Your task to perform on an android device: Open Reddit.com Image 0: 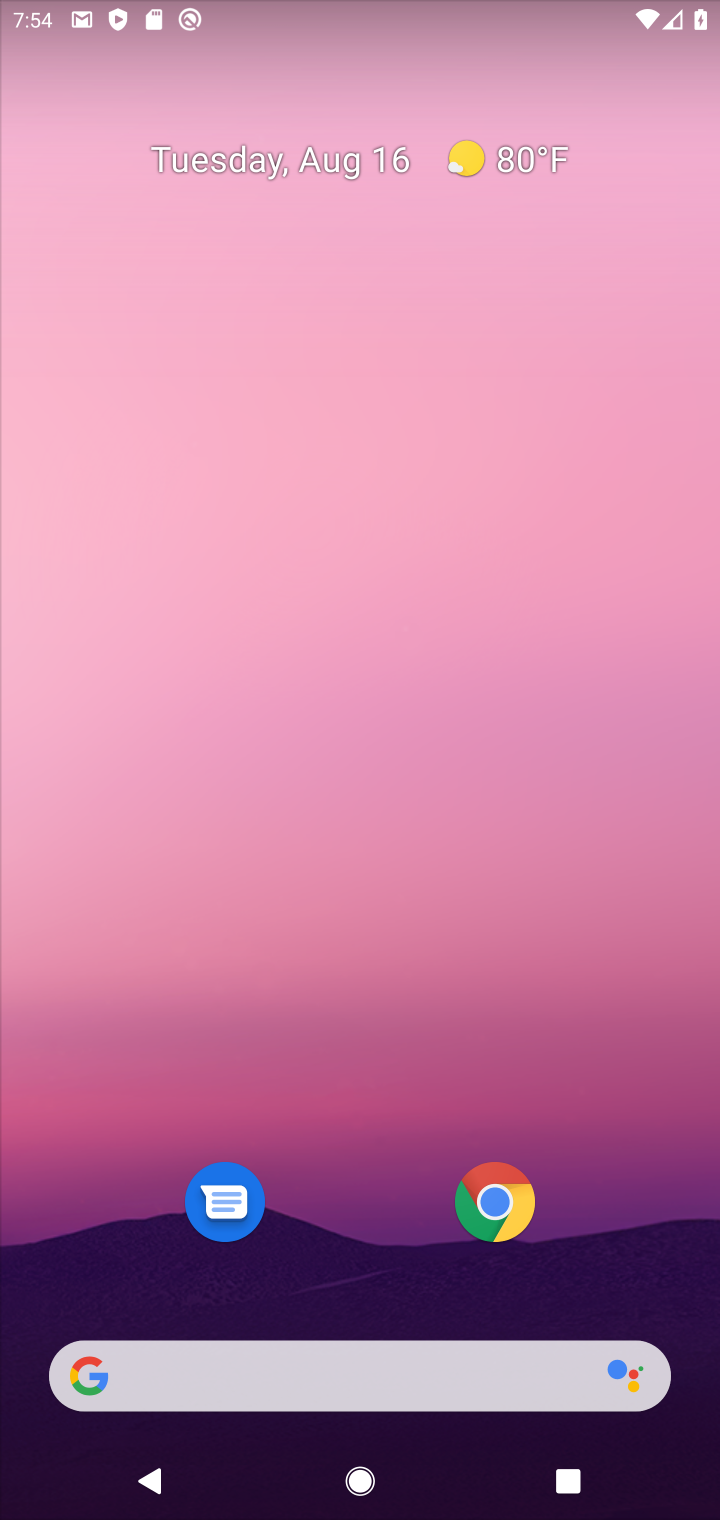
Step 0: task complete